Your task to perform on an android device: Open Wikipedia Image 0: 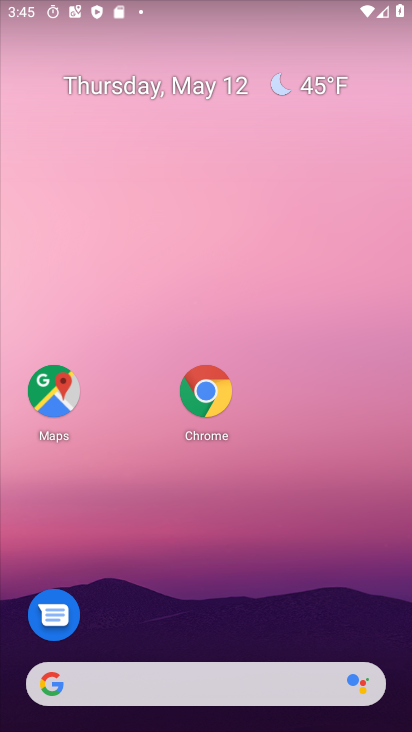
Step 0: drag from (218, 585) to (220, 99)
Your task to perform on an android device: Open Wikipedia Image 1: 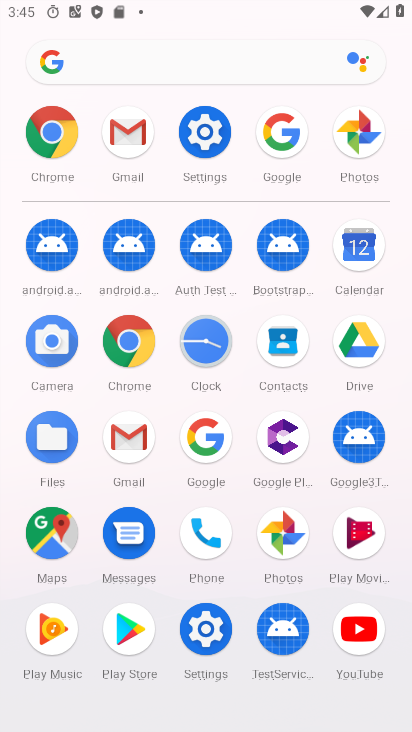
Step 1: click (54, 132)
Your task to perform on an android device: Open Wikipedia Image 2: 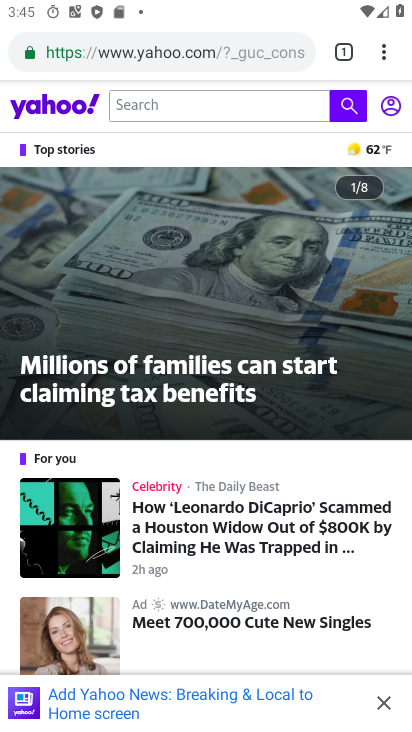
Step 2: press back button
Your task to perform on an android device: Open Wikipedia Image 3: 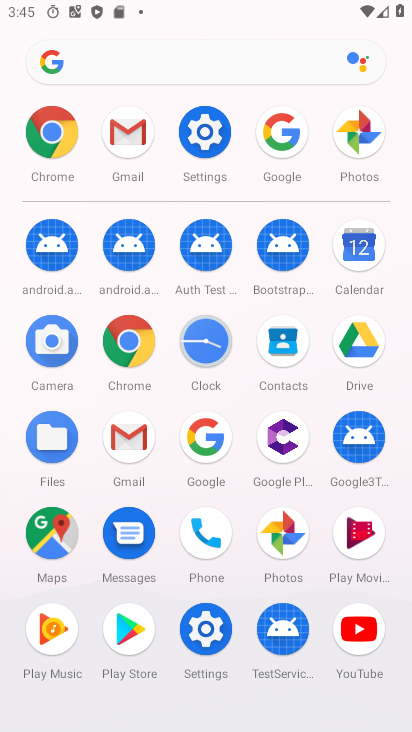
Step 3: click (46, 130)
Your task to perform on an android device: Open Wikipedia Image 4: 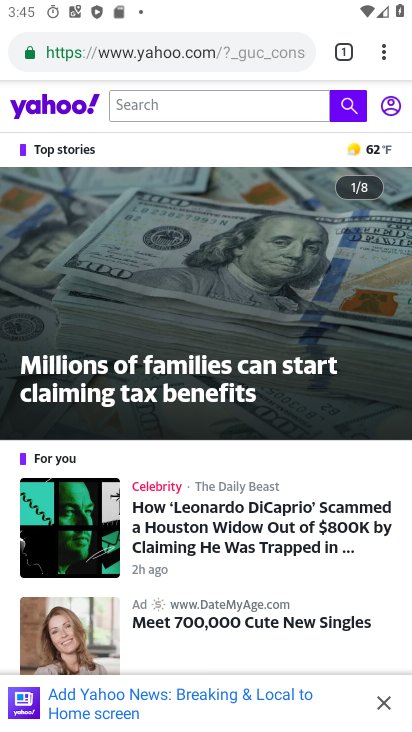
Step 4: click (189, 53)
Your task to perform on an android device: Open Wikipedia Image 5: 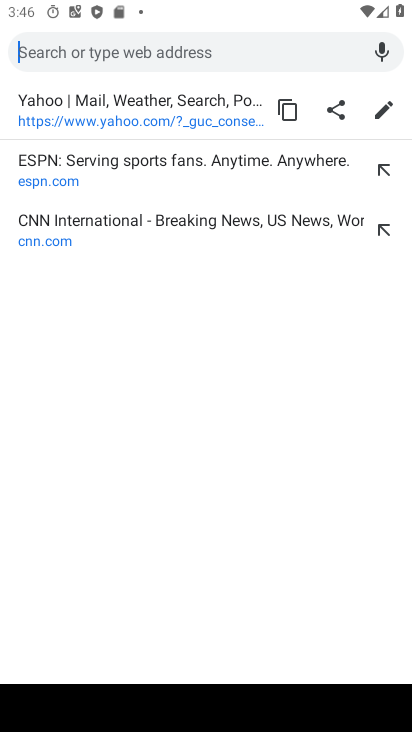
Step 5: type "wikkipedia"
Your task to perform on an android device: Open Wikipedia Image 6: 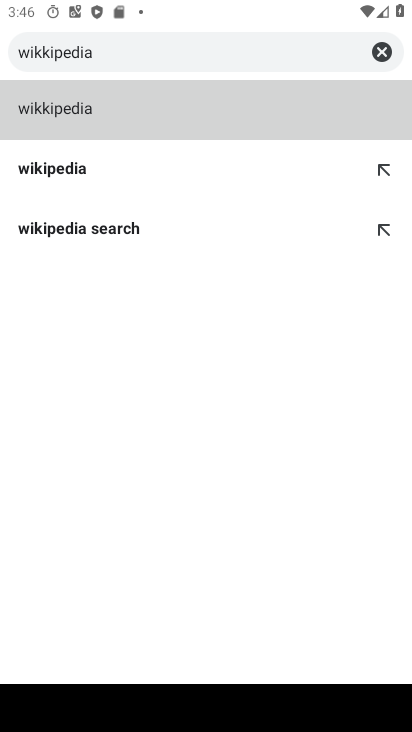
Step 6: click (84, 121)
Your task to perform on an android device: Open Wikipedia Image 7: 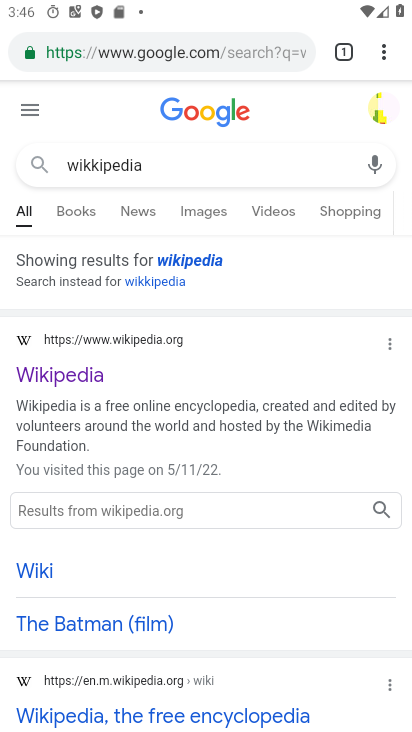
Step 7: click (35, 366)
Your task to perform on an android device: Open Wikipedia Image 8: 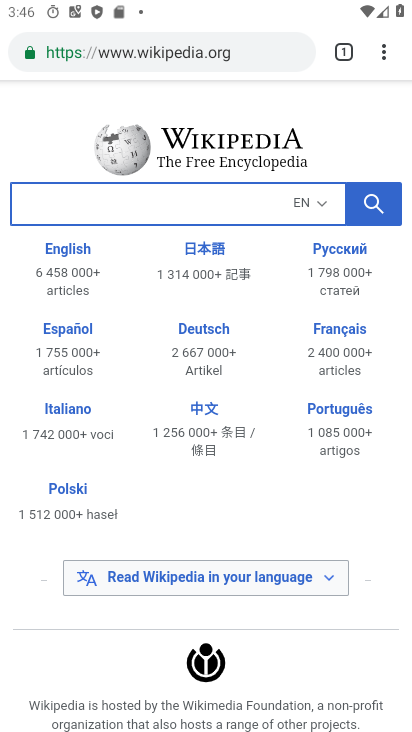
Step 8: task complete